Your task to perform on an android device: Check the news Image 0: 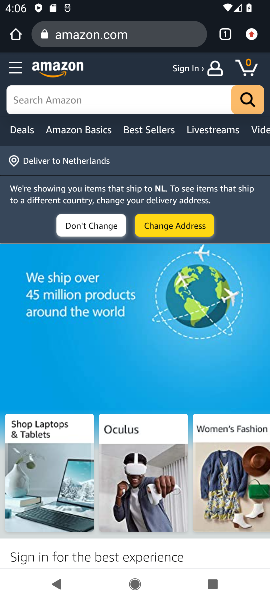
Step 0: click (160, 36)
Your task to perform on an android device: Check the news Image 1: 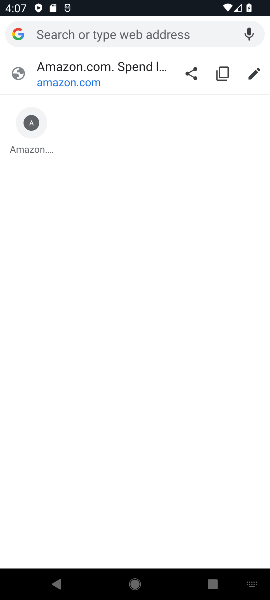
Step 1: type "news"
Your task to perform on an android device: Check the news Image 2: 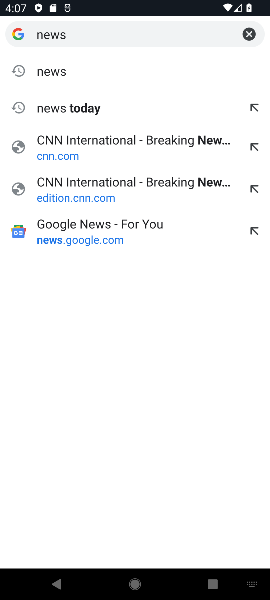
Step 2: click (92, 69)
Your task to perform on an android device: Check the news Image 3: 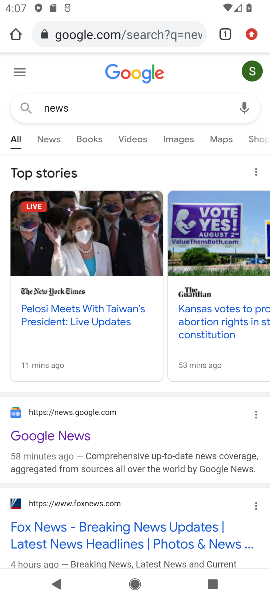
Step 3: click (70, 431)
Your task to perform on an android device: Check the news Image 4: 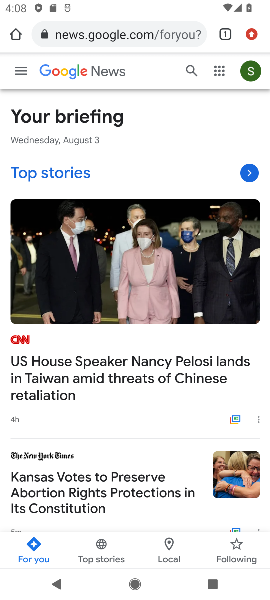
Step 4: task complete